Your task to perform on an android device: Do I have any events today? Image 0: 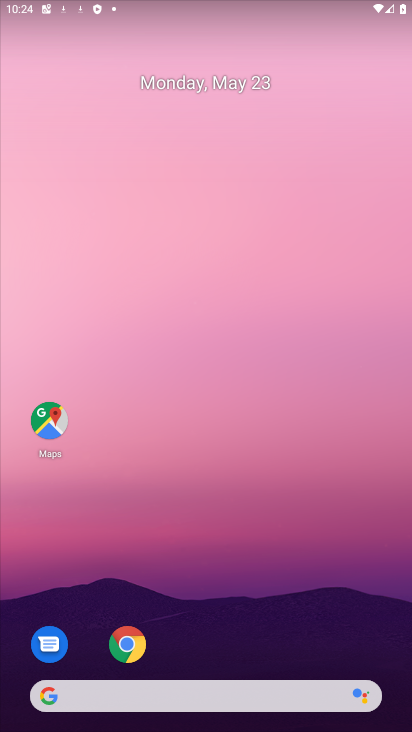
Step 0: drag from (293, 715) to (147, 80)
Your task to perform on an android device: Do I have any events today? Image 1: 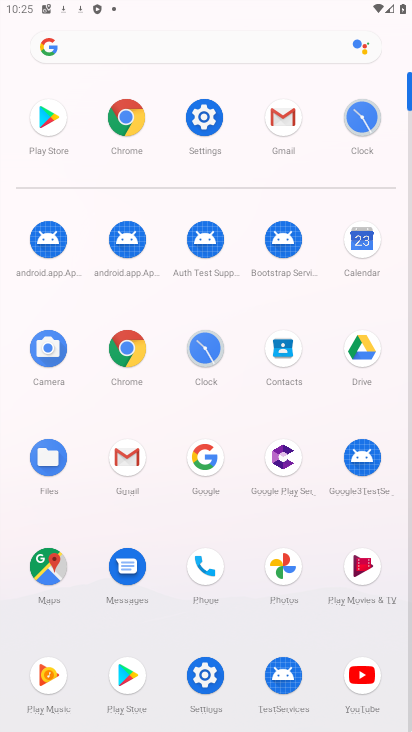
Step 1: click (359, 245)
Your task to perform on an android device: Do I have any events today? Image 2: 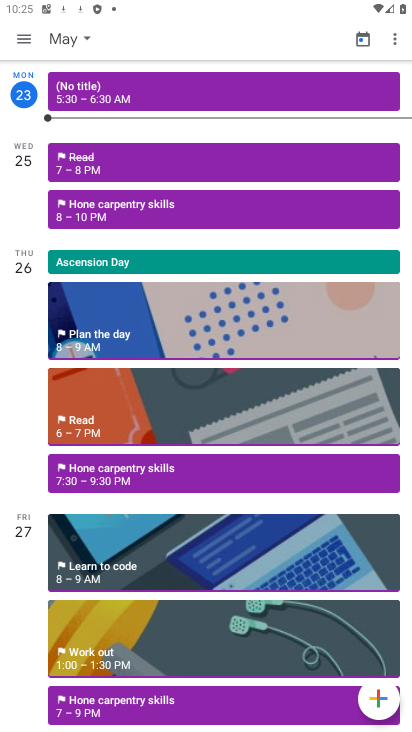
Step 2: task complete